Your task to perform on an android device: Add "logitech g903" to the cart on bestbuy Image 0: 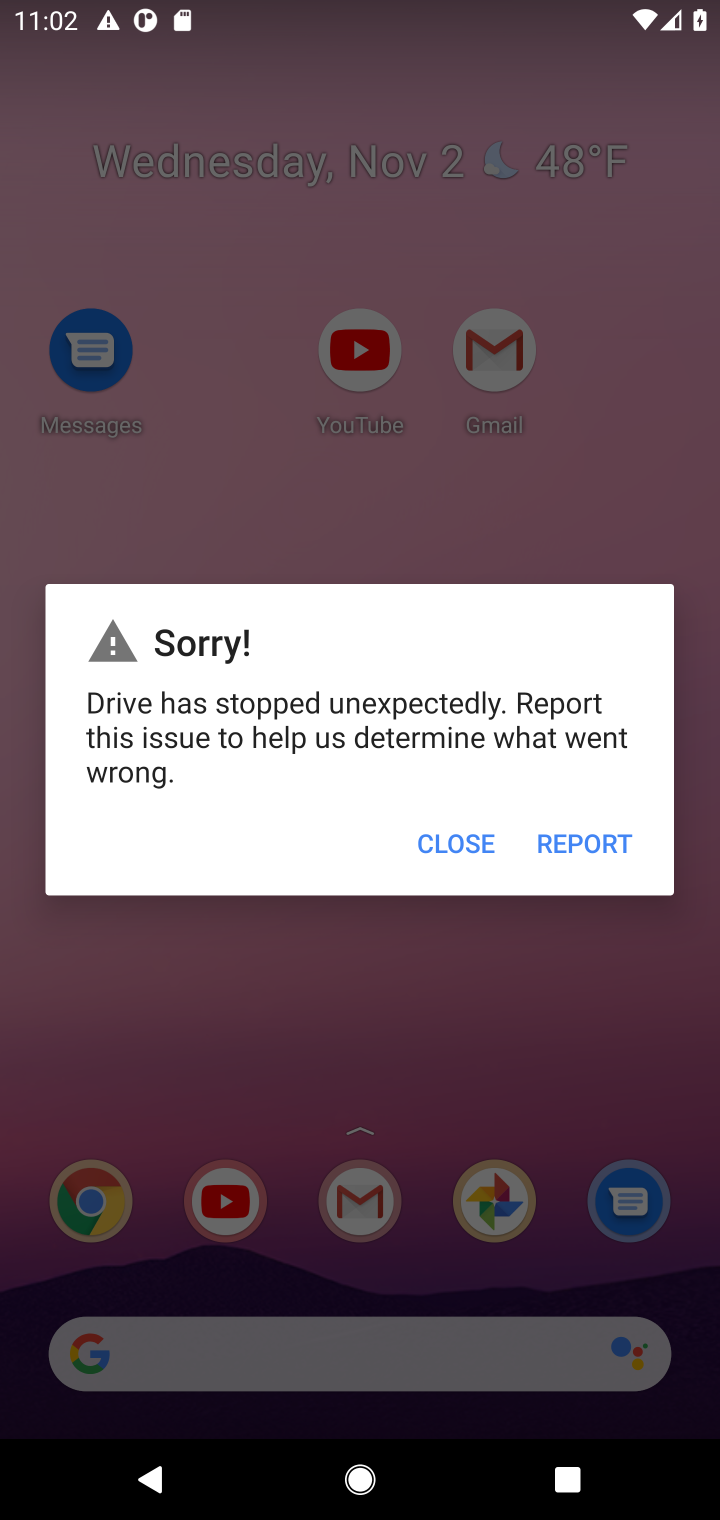
Step 0: press home button
Your task to perform on an android device: Add "logitech g903" to the cart on bestbuy Image 1: 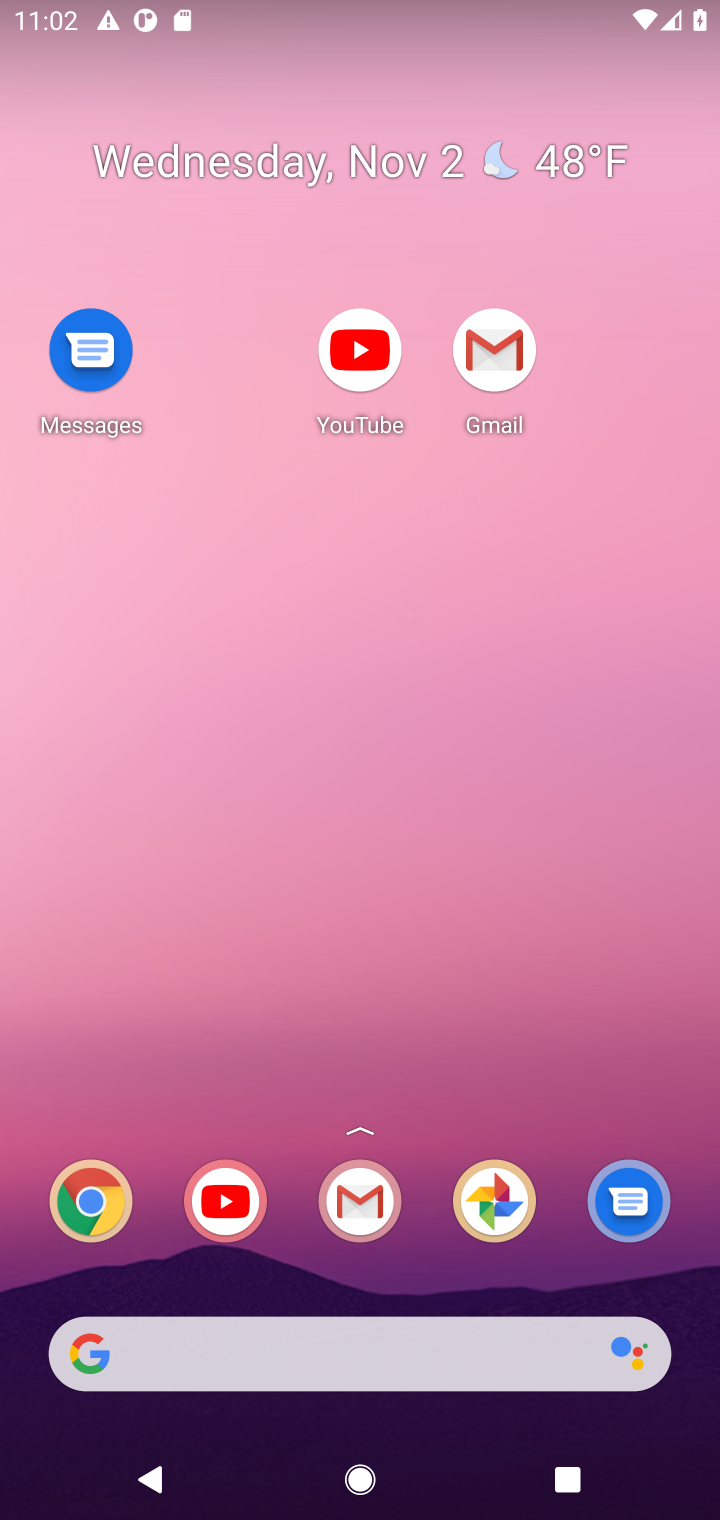
Step 1: press home button
Your task to perform on an android device: Add "logitech g903" to the cart on bestbuy Image 2: 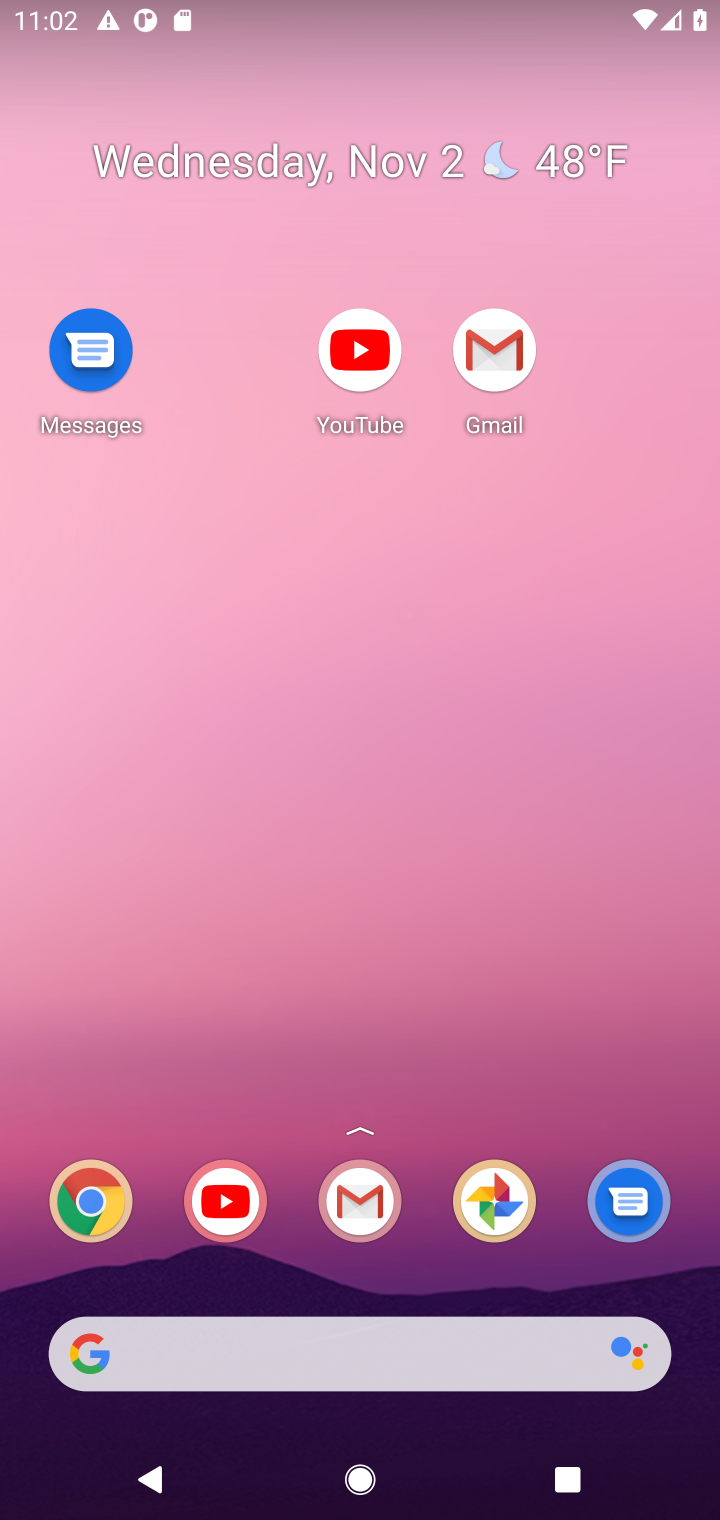
Step 2: drag from (444, 1193) to (430, 318)
Your task to perform on an android device: Add "logitech g903" to the cart on bestbuy Image 3: 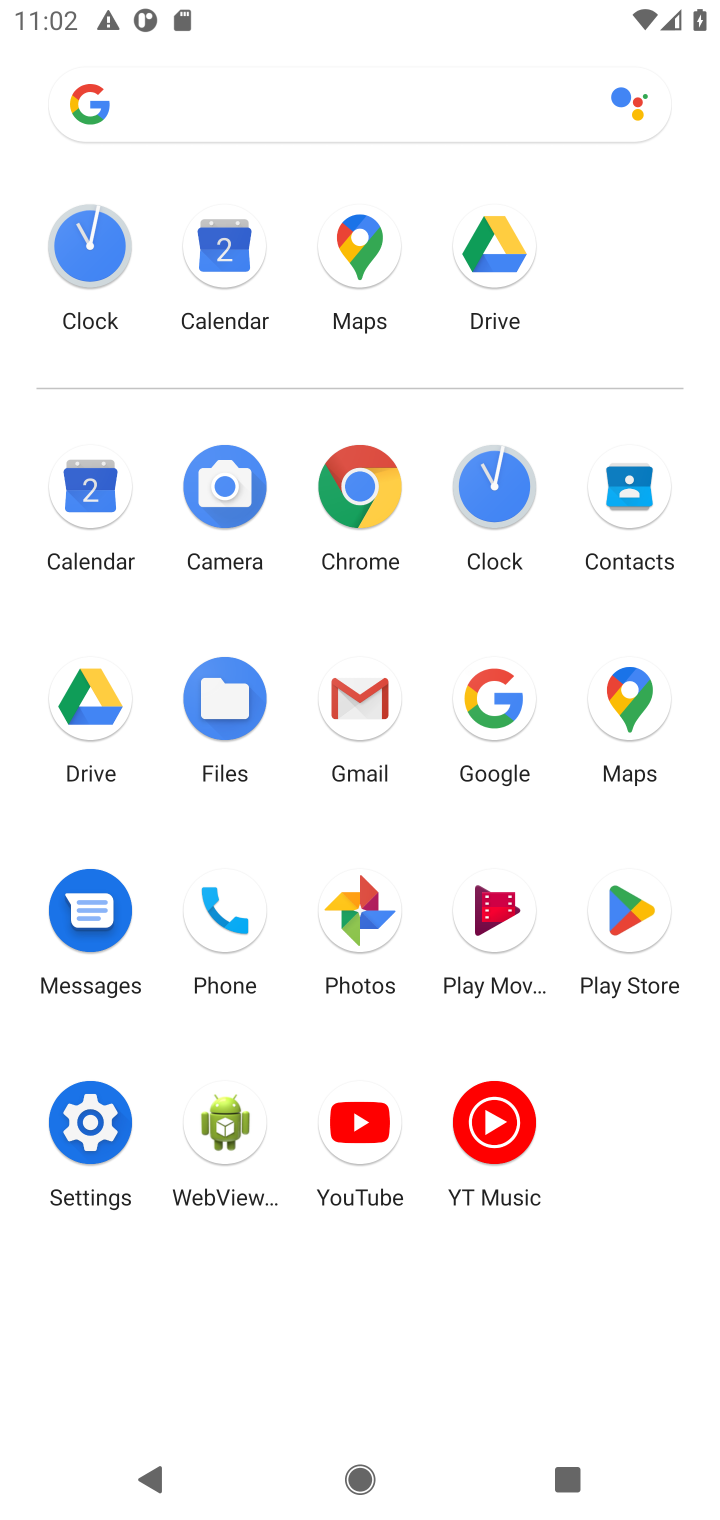
Step 3: click (358, 488)
Your task to perform on an android device: Add "logitech g903" to the cart on bestbuy Image 4: 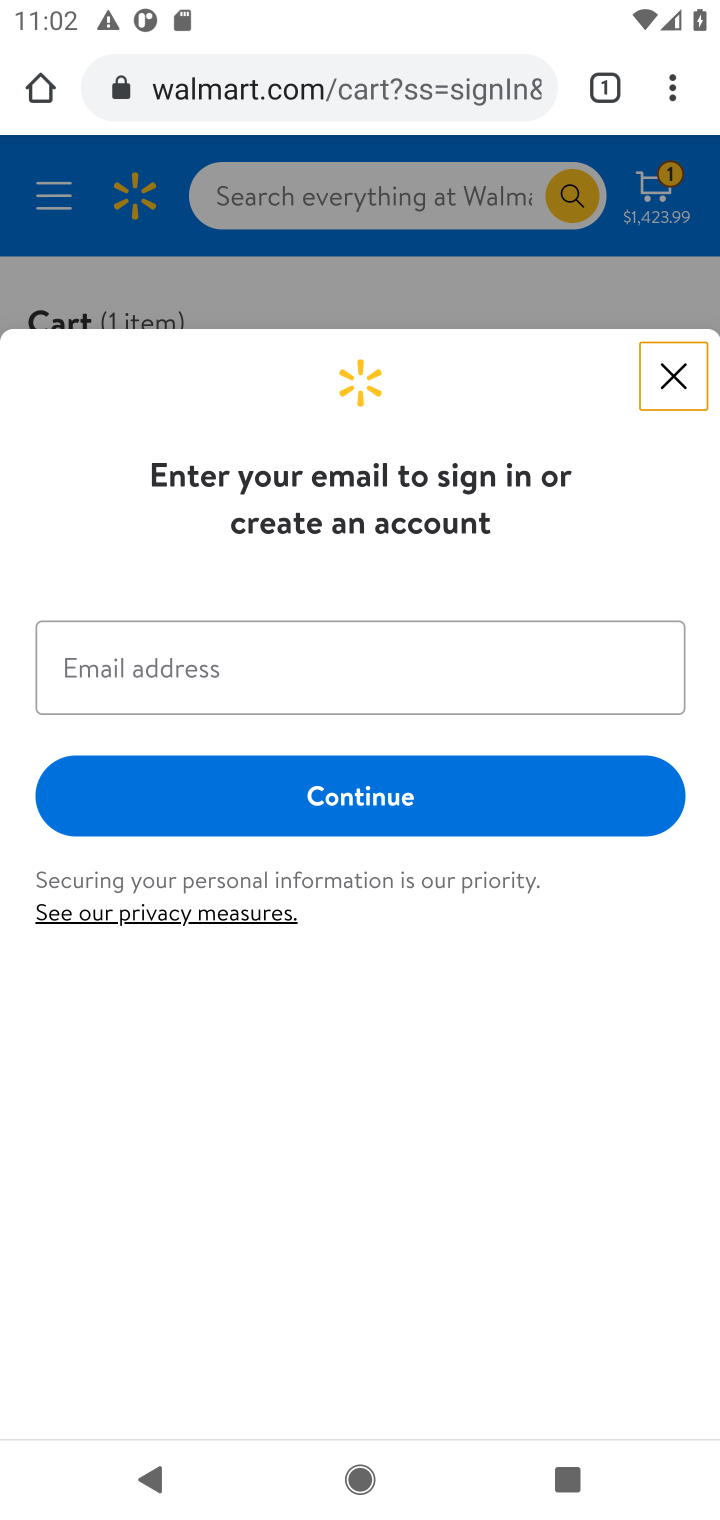
Step 4: click (401, 110)
Your task to perform on an android device: Add "logitech g903" to the cart on bestbuy Image 5: 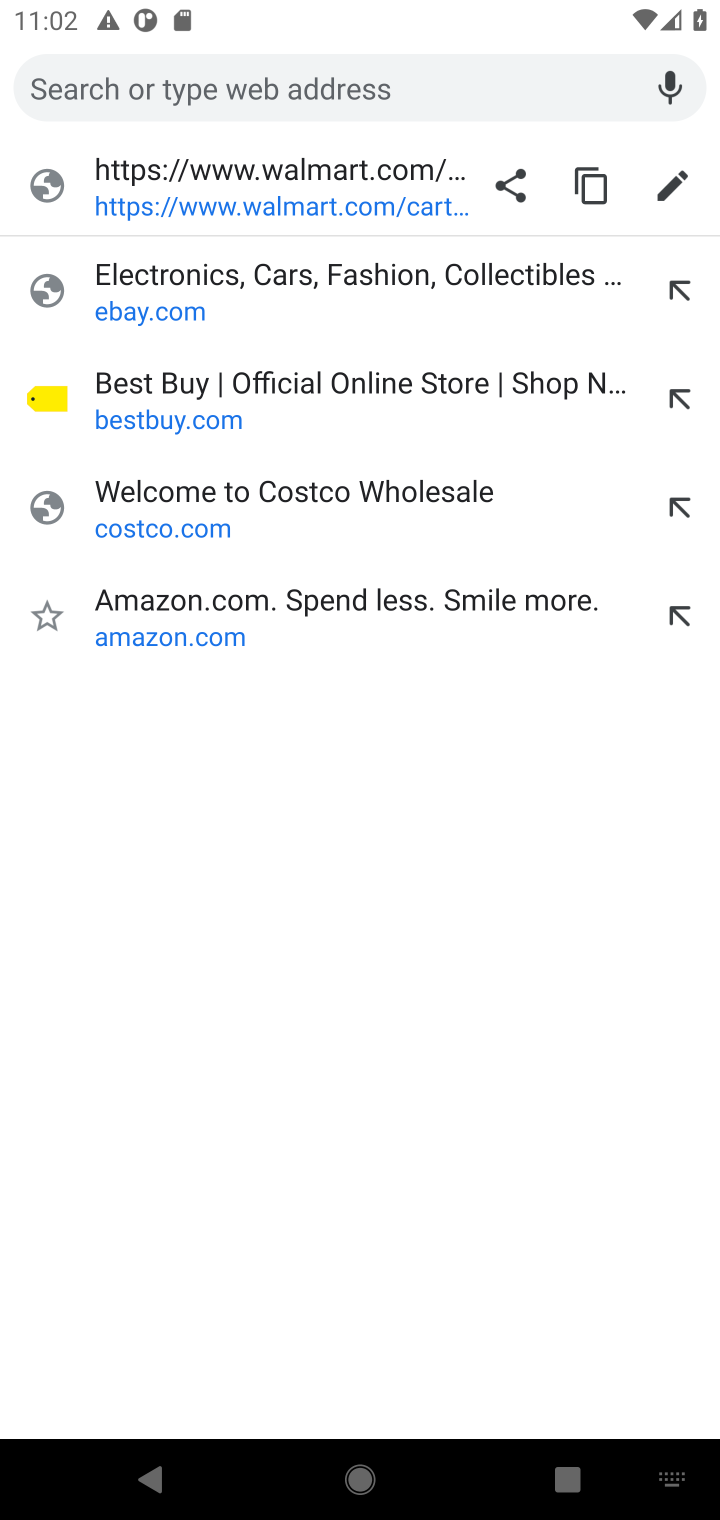
Step 5: type "bestbuy.com"
Your task to perform on an android device: Add "logitech g903" to the cart on bestbuy Image 6: 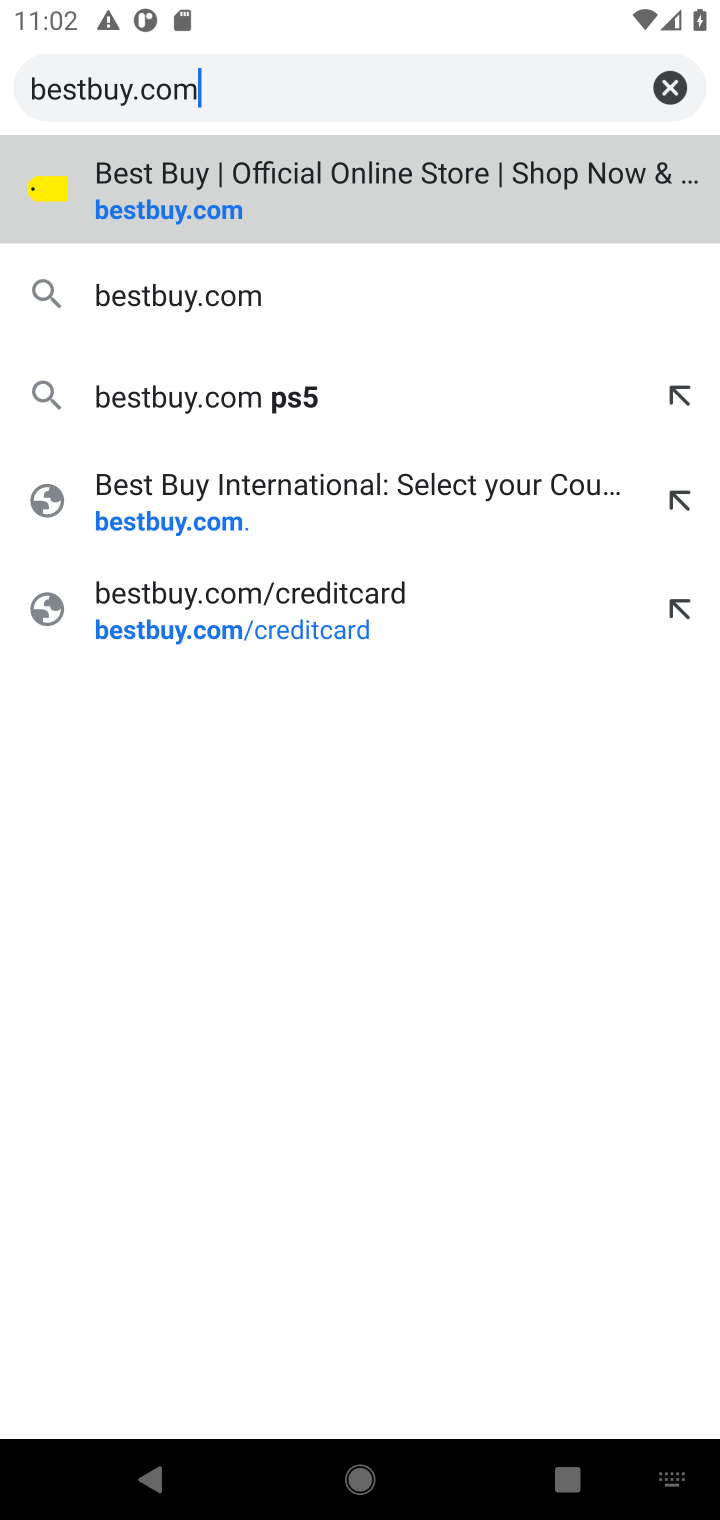
Step 6: press enter
Your task to perform on an android device: Add "logitech g903" to the cart on bestbuy Image 7: 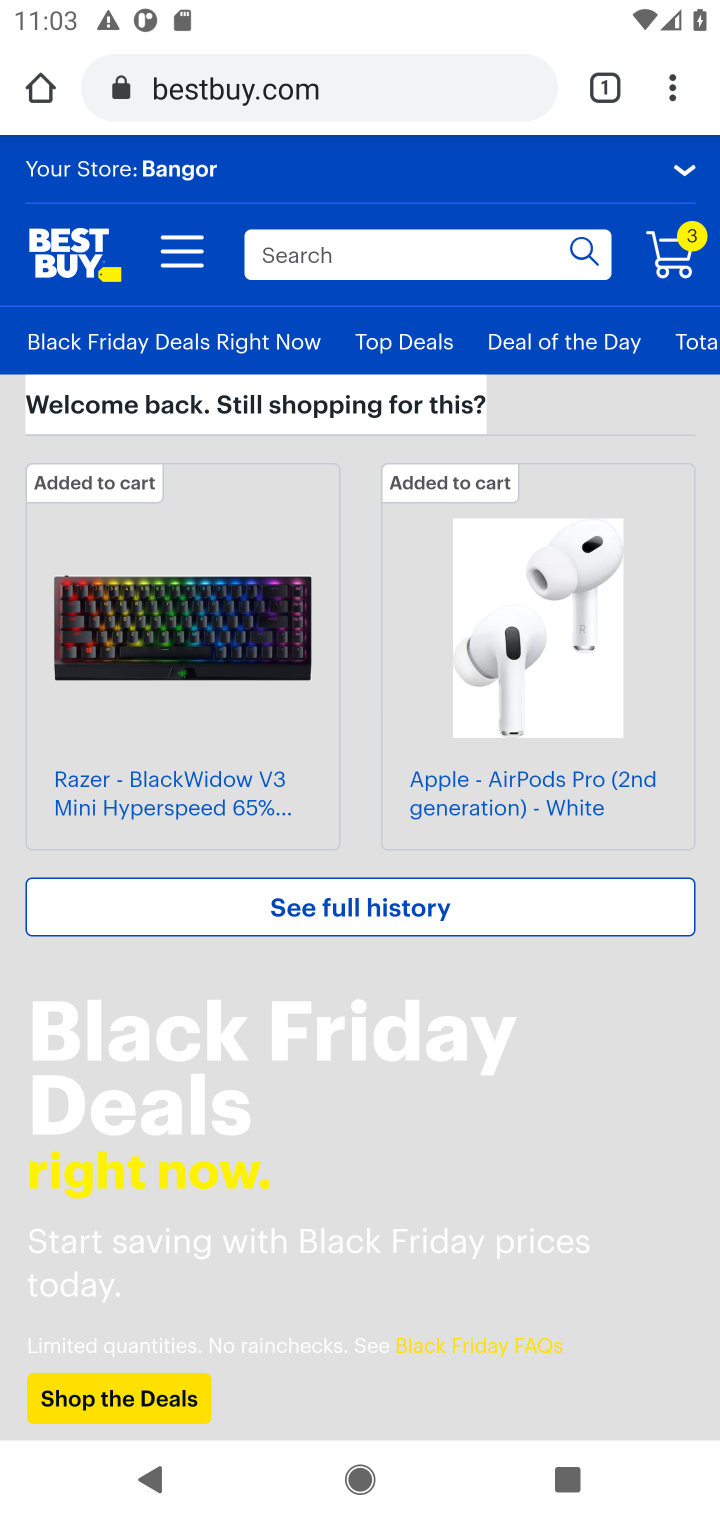
Step 7: click (499, 258)
Your task to perform on an android device: Add "logitech g903" to the cart on bestbuy Image 8: 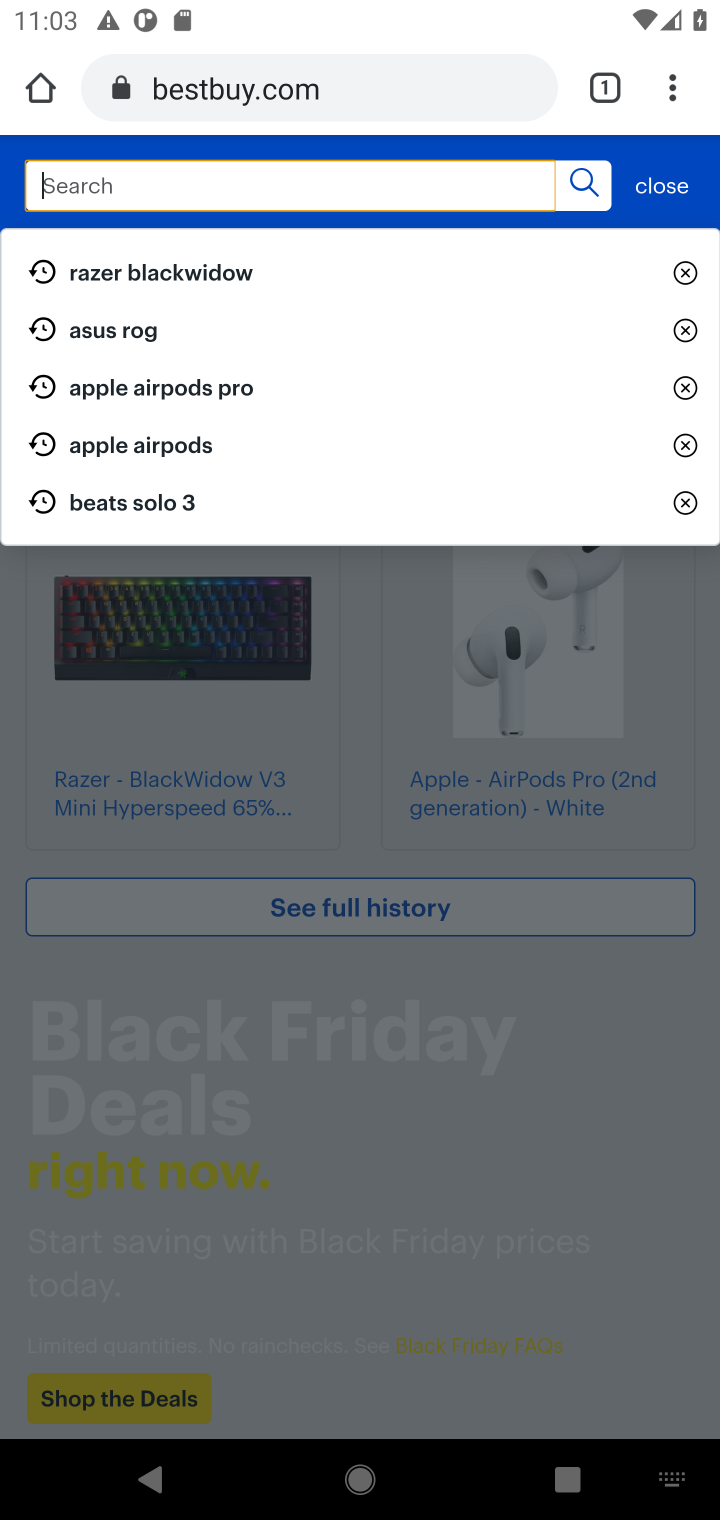
Step 8: type "logitech g903"
Your task to perform on an android device: Add "logitech g903" to the cart on bestbuy Image 9: 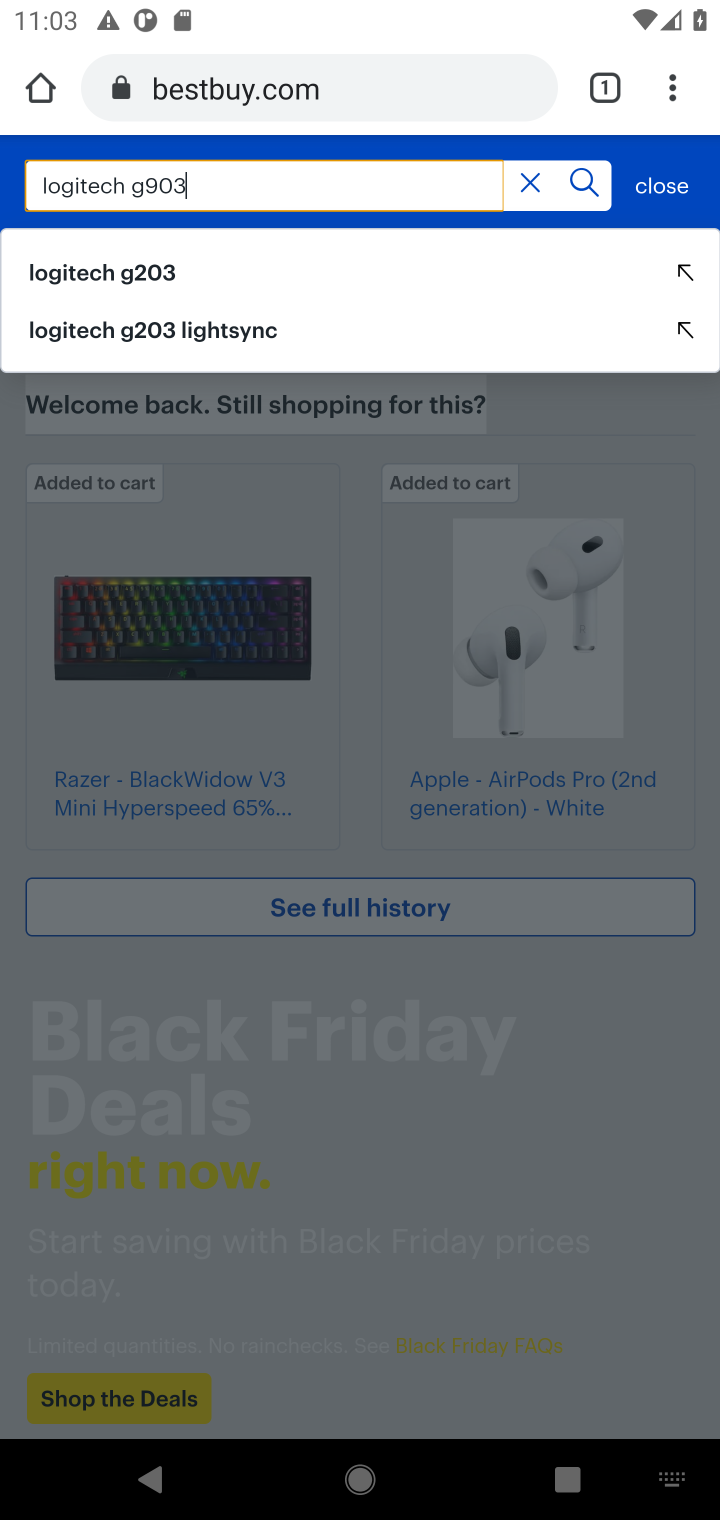
Step 9: press enter
Your task to perform on an android device: Add "logitech g903" to the cart on bestbuy Image 10: 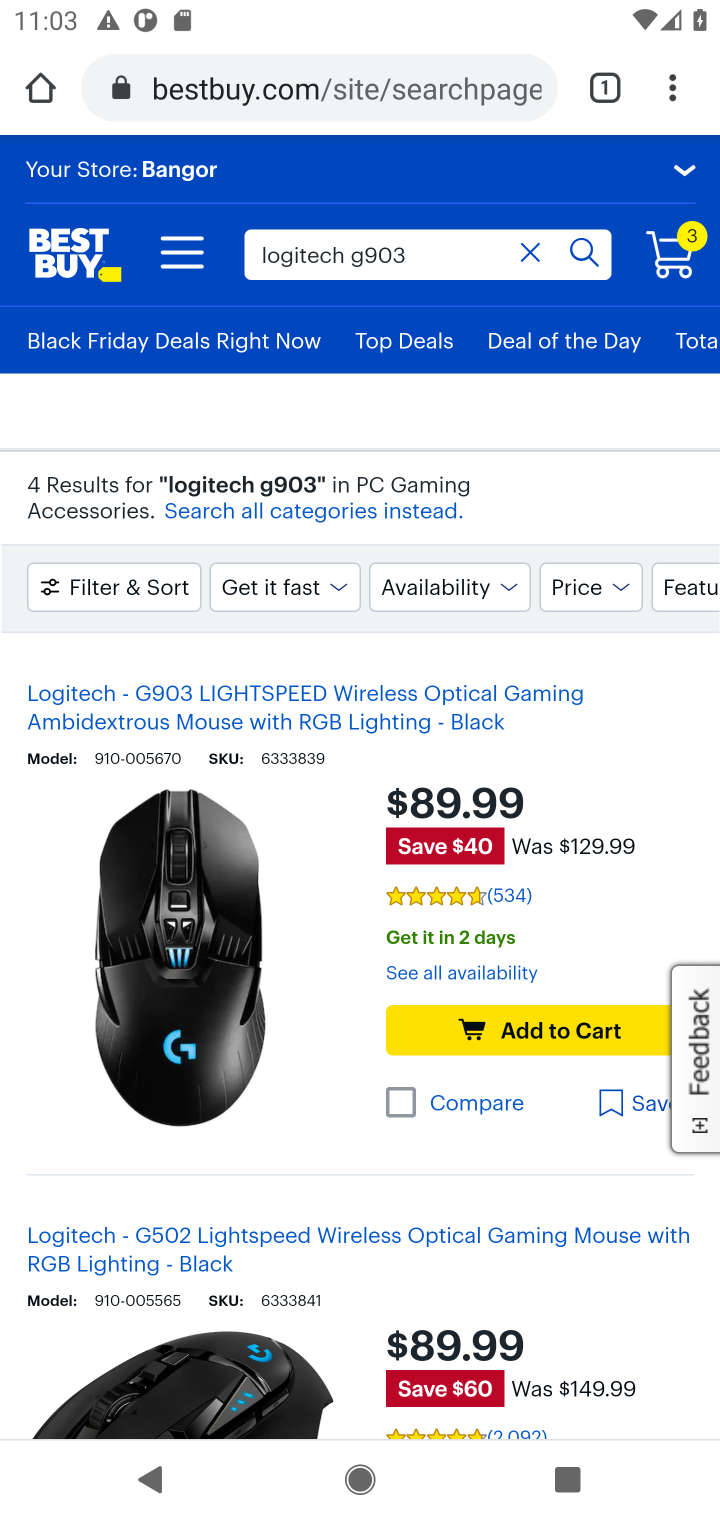
Step 10: click (582, 1028)
Your task to perform on an android device: Add "logitech g903" to the cart on bestbuy Image 11: 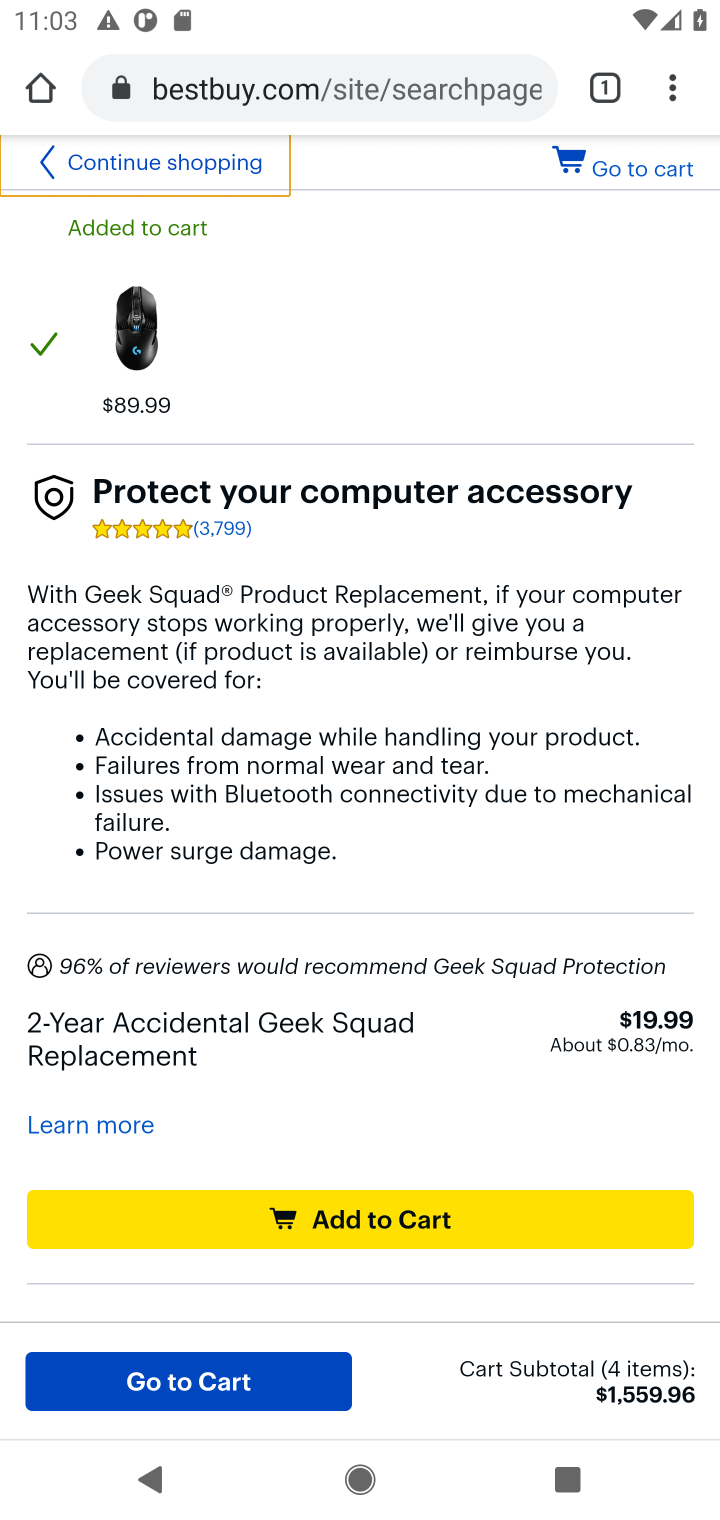
Step 11: click (295, 1387)
Your task to perform on an android device: Add "logitech g903" to the cart on bestbuy Image 12: 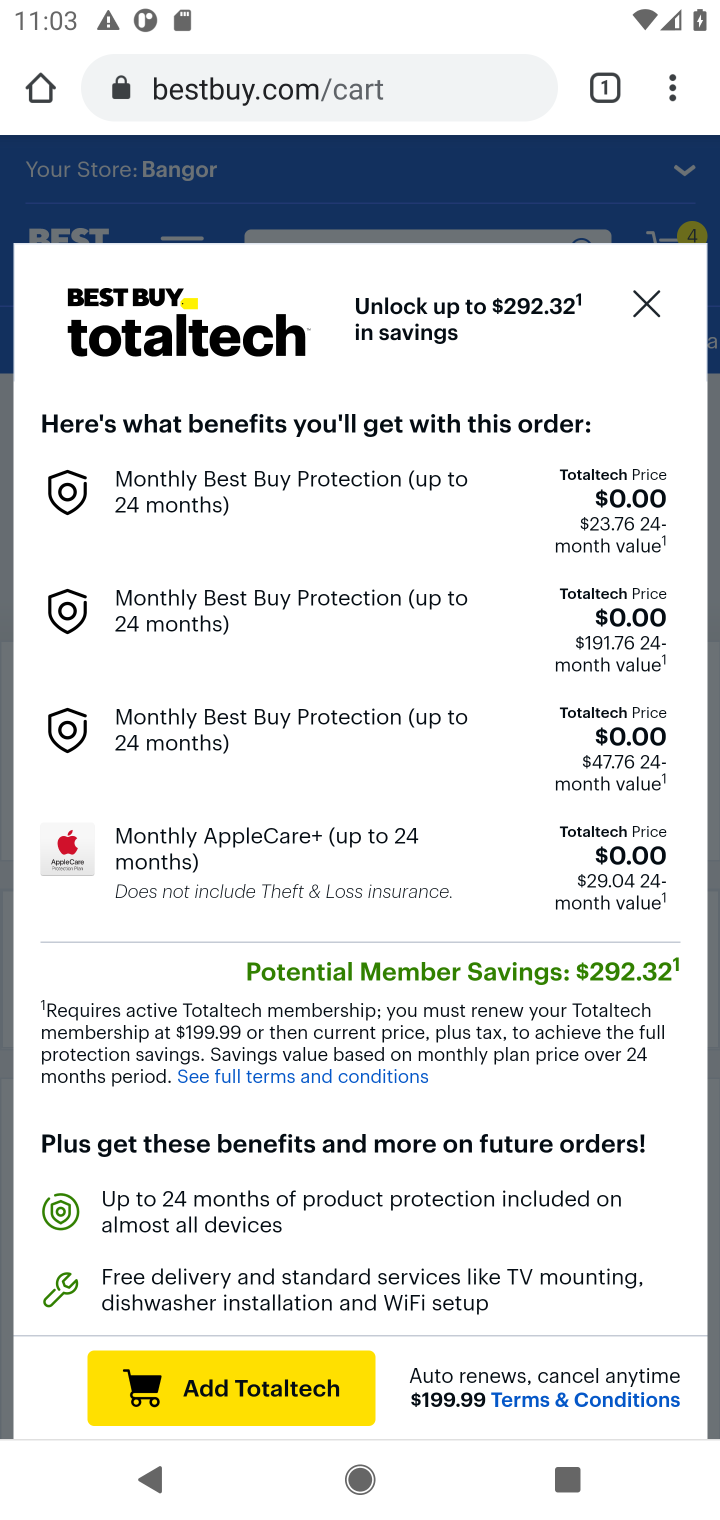
Step 12: task complete